Your task to perform on an android device: uninstall "Venmo" Image 0: 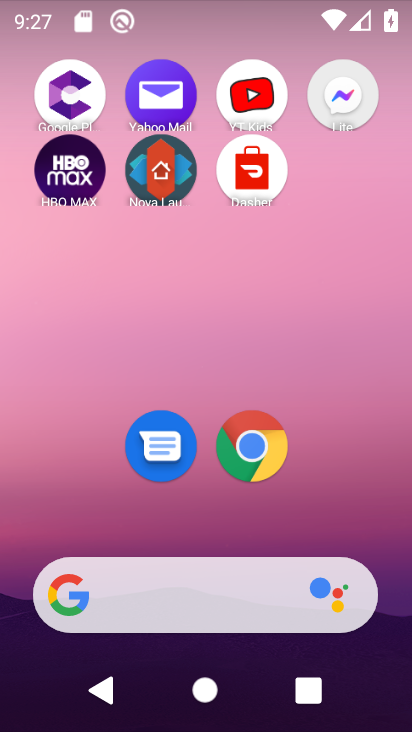
Step 0: drag from (224, 530) to (225, 136)
Your task to perform on an android device: uninstall "Venmo" Image 1: 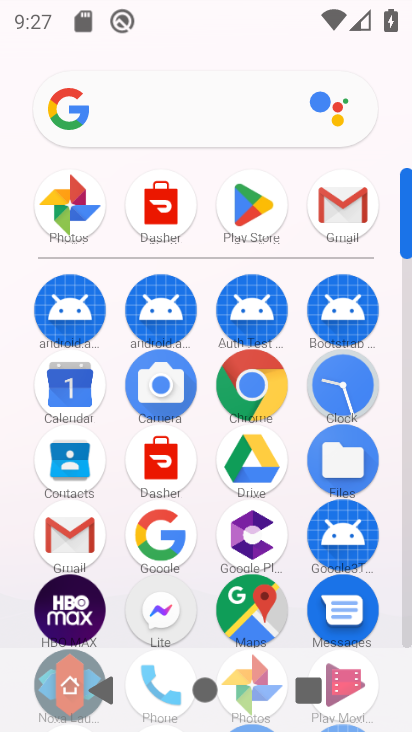
Step 1: click (254, 206)
Your task to perform on an android device: uninstall "Venmo" Image 2: 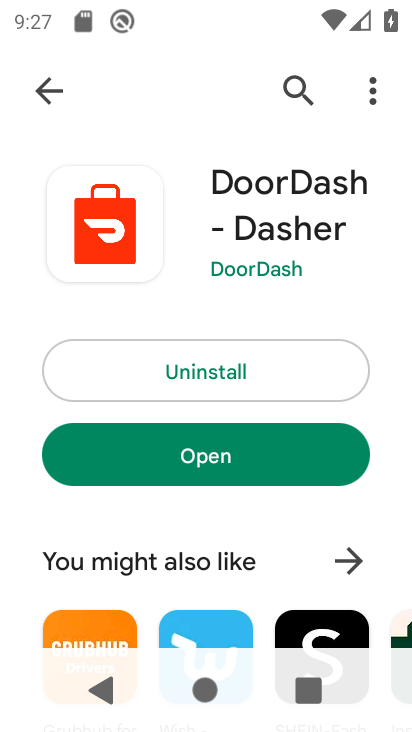
Step 2: click (303, 85)
Your task to perform on an android device: uninstall "Venmo" Image 3: 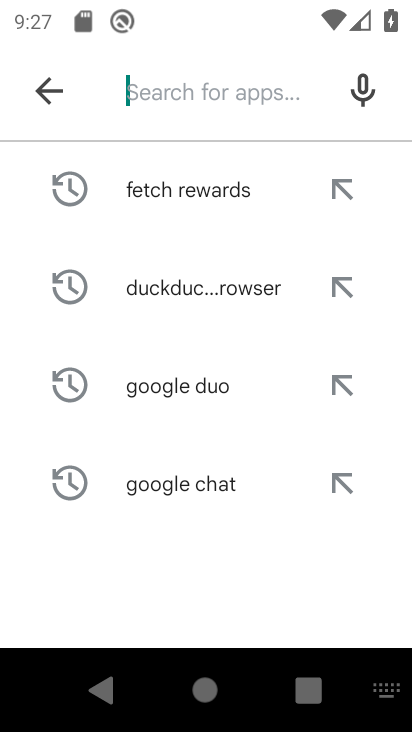
Step 3: type "Venmo"
Your task to perform on an android device: uninstall "Venmo" Image 4: 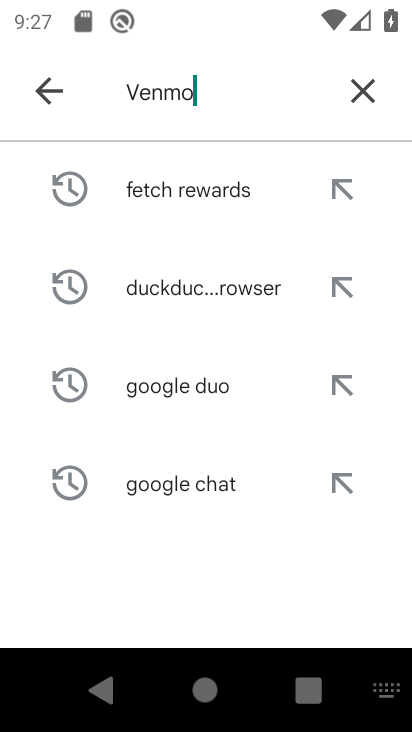
Step 4: type ""
Your task to perform on an android device: uninstall "Venmo" Image 5: 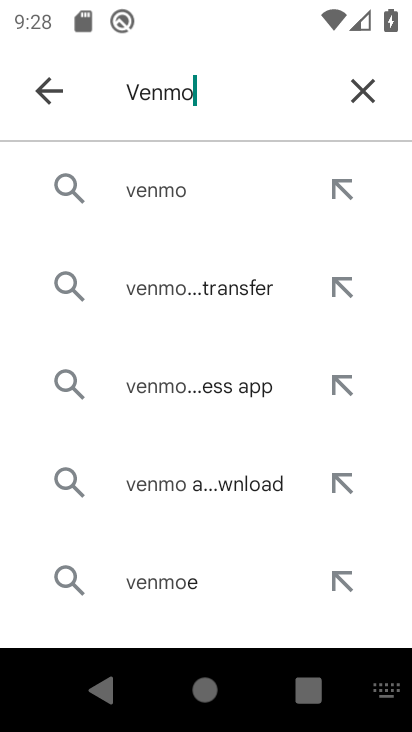
Step 5: click (150, 170)
Your task to perform on an android device: uninstall "Venmo" Image 6: 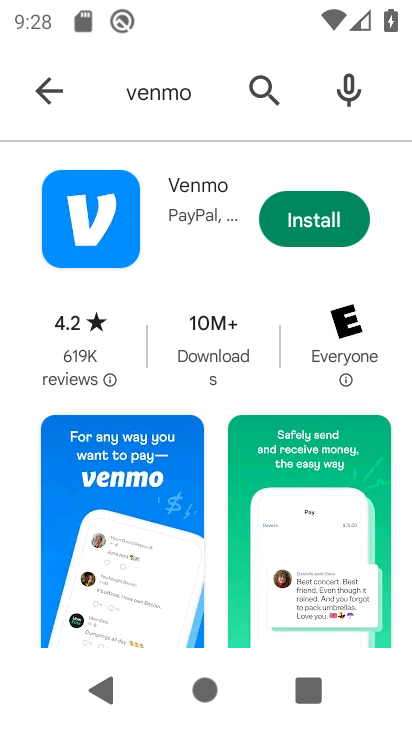
Step 6: task complete